Your task to perform on an android device: Open privacy settings Image 0: 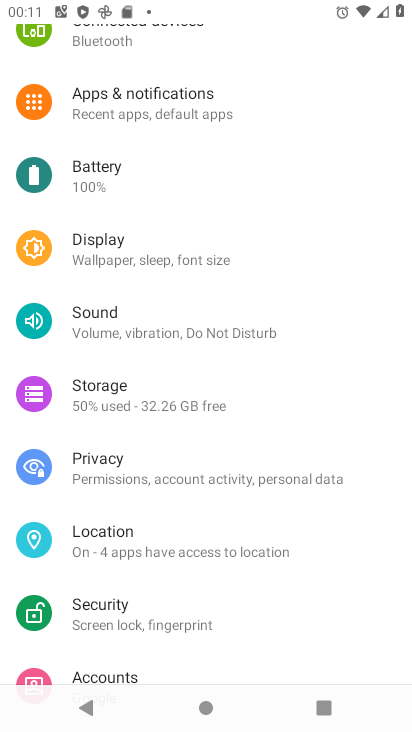
Step 0: press home button
Your task to perform on an android device: Open privacy settings Image 1: 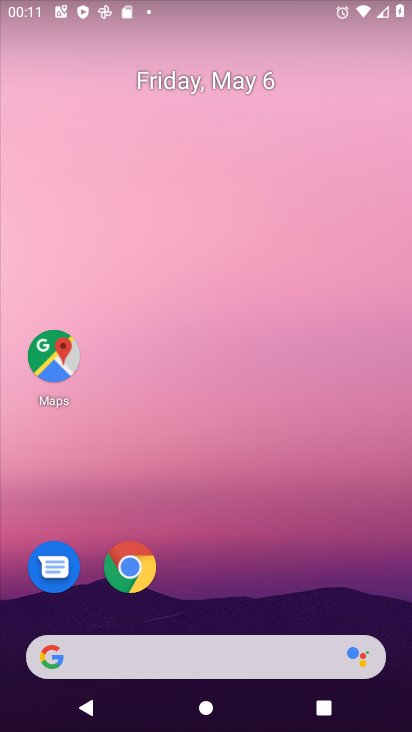
Step 1: drag from (197, 608) to (197, 141)
Your task to perform on an android device: Open privacy settings Image 2: 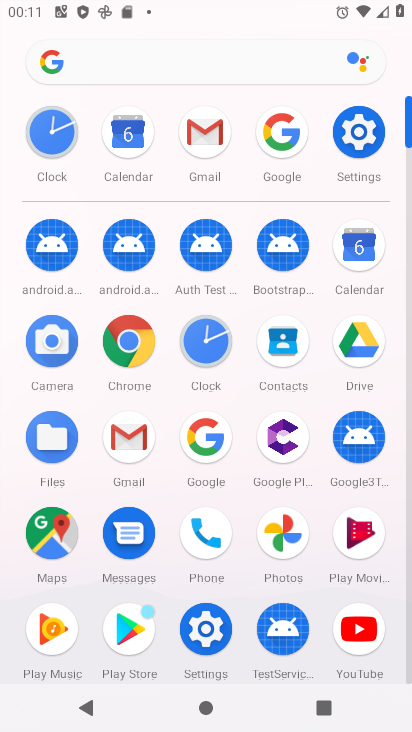
Step 2: click (348, 139)
Your task to perform on an android device: Open privacy settings Image 3: 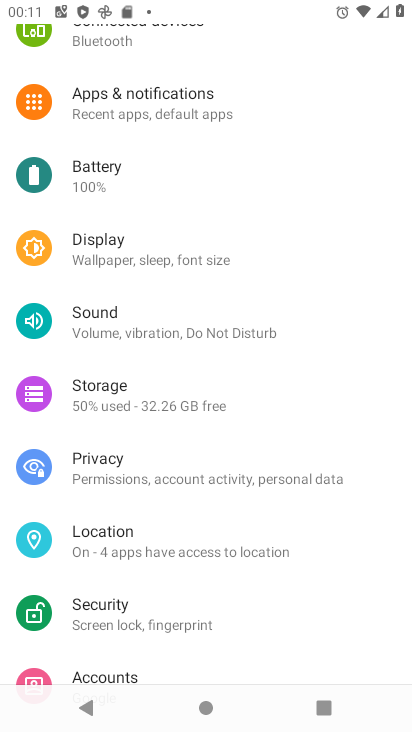
Step 3: click (101, 454)
Your task to perform on an android device: Open privacy settings Image 4: 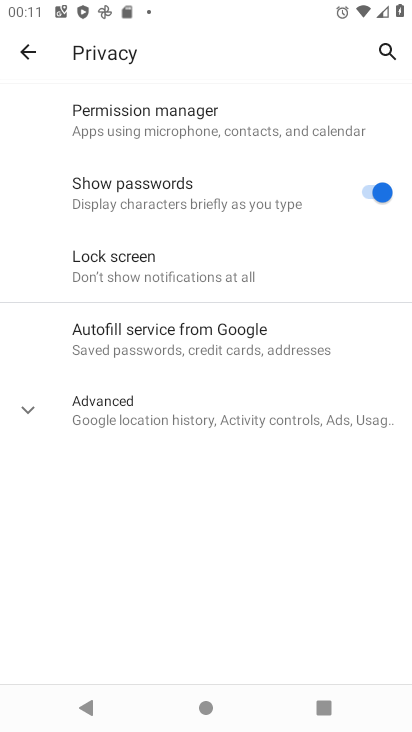
Step 4: task complete